Your task to perform on an android device: delete the emails in spam in the gmail app Image 0: 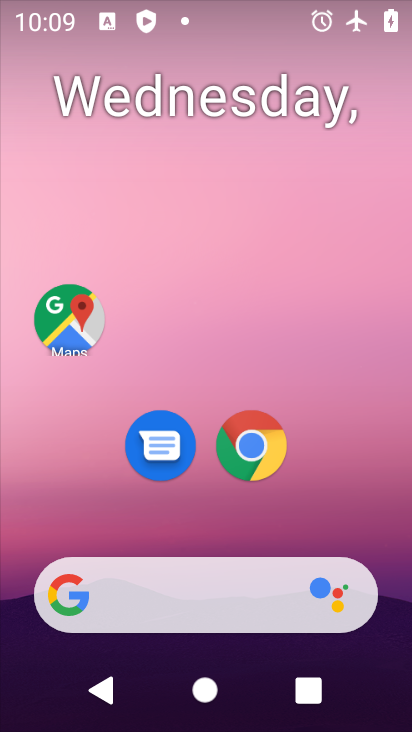
Step 0: drag from (335, 526) to (305, 13)
Your task to perform on an android device: delete the emails in spam in the gmail app Image 1: 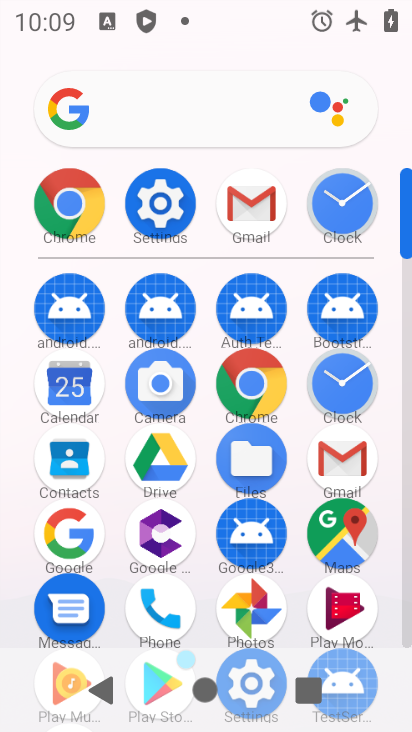
Step 1: click (340, 435)
Your task to perform on an android device: delete the emails in spam in the gmail app Image 2: 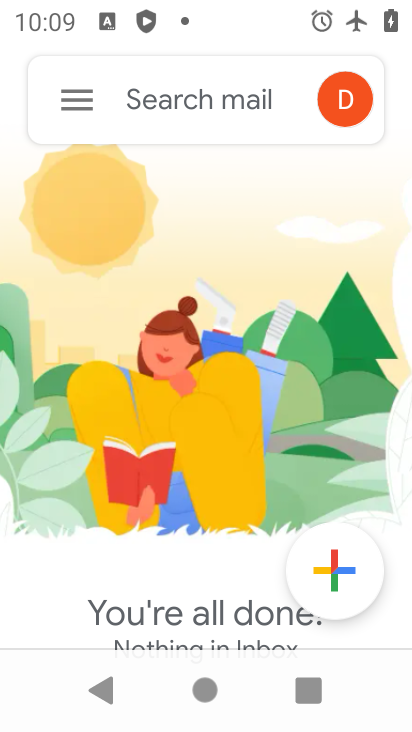
Step 2: click (72, 121)
Your task to perform on an android device: delete the emails in spam in the gmail app Image 3: 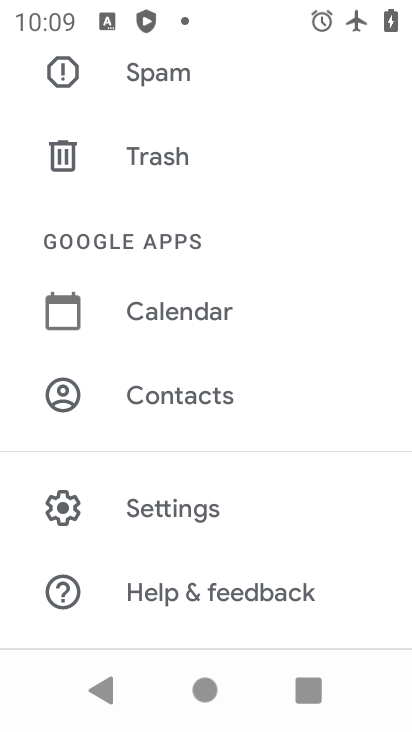
Step 3: drag from (170, 514) to (130, 205)
Your task to perform on an android device: delete the emails in spam in the gmail app Image 4: 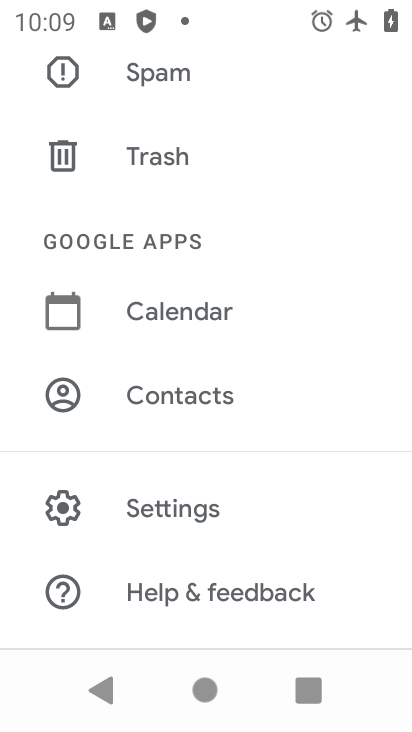
Step 4: click (143, 80)
Your task to perform on an android device: delete the emails in spam in the gmail app Image 5: 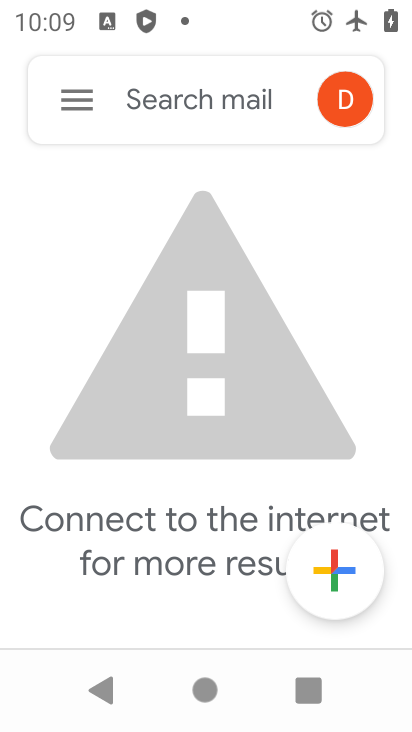
Step 5: task complete